Your task to perform on an android device: Open network settings Image 0: 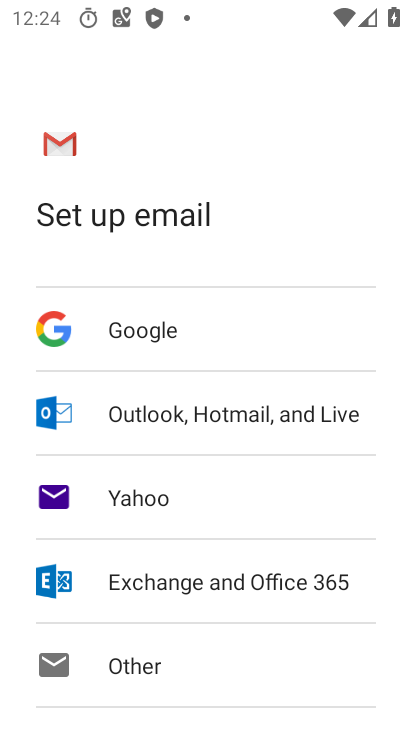
Step 0: press home button
Your task to perform on an android device: Open network settings Image 1: 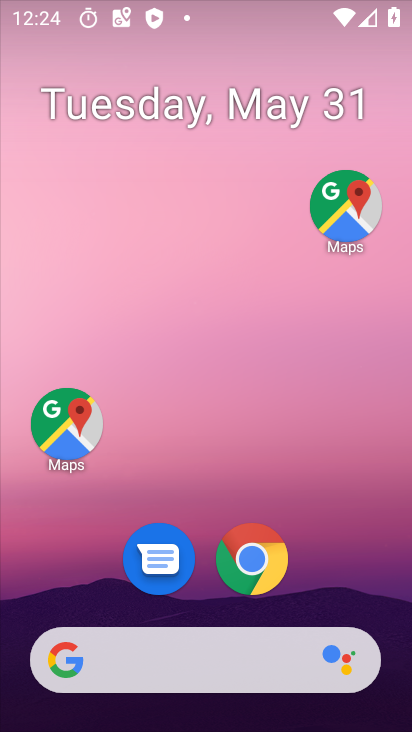
Step 1: drag from (358, 536) to (270, 28)
Your task to perform on an android device: Open network settings Image 2: 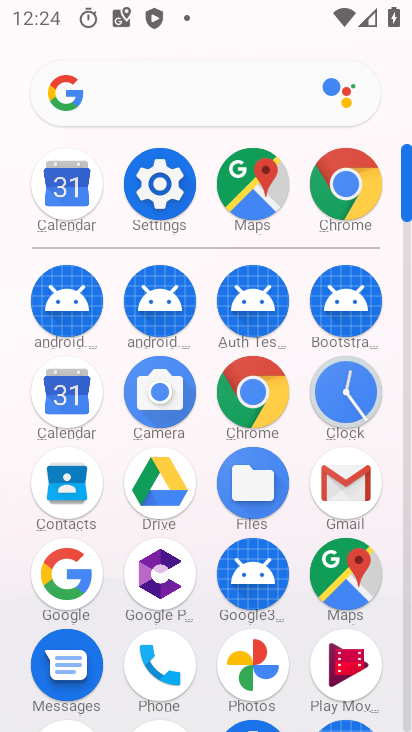
Step 2: click (169, 180)
Your task to perform on an android device: Open network settings Image 3: 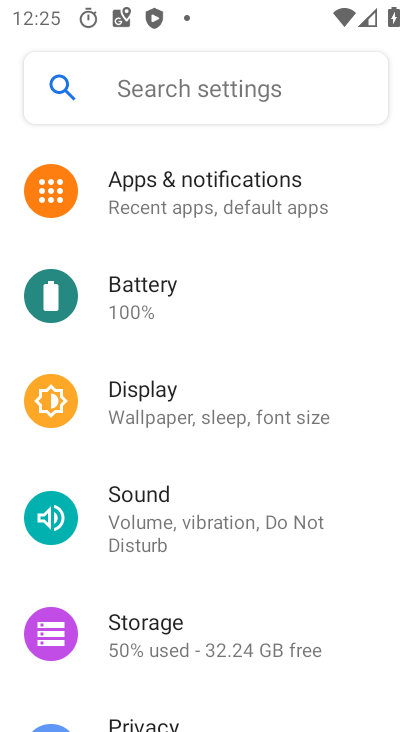
Step 3: drag from (203, 612) to (235, 205)
Your task to perform on an android device: Open network settings Image 4: 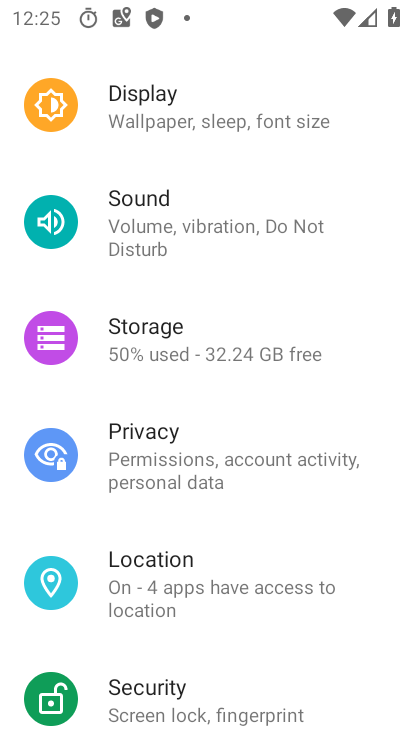
Step 4: drag from (198, 521) to (250, 174)
Your task to perform on an android device: Open network settings Image 5: 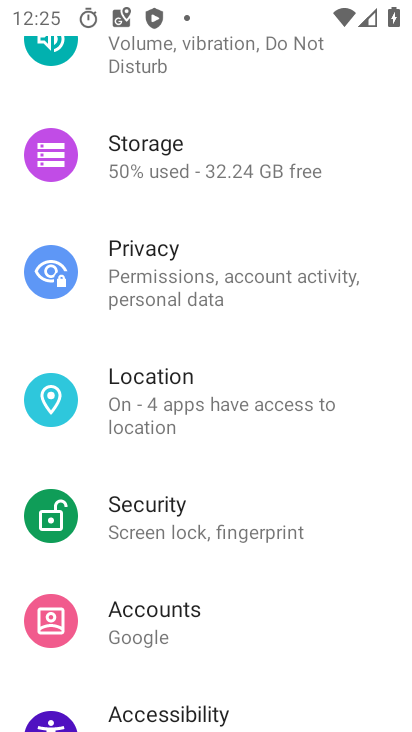
Step 5: drag from (175, 586) to (263, 186)
Your task to perform on an android device: Open network settings Image 6: 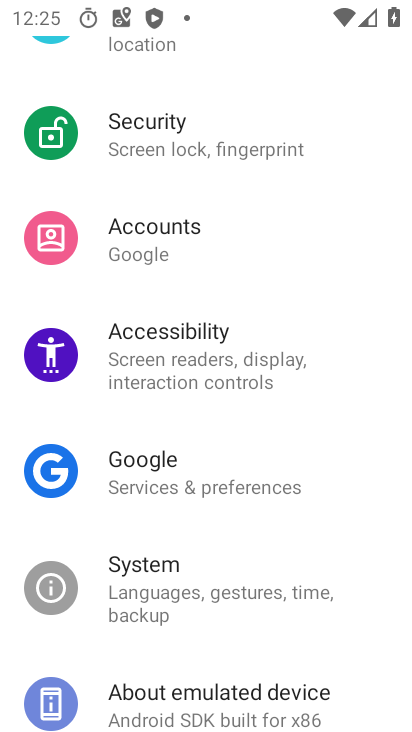
Step 6: drag from (253, 220) to (227, 731)
Your task to perform on an android device: Open network settings Image 7: 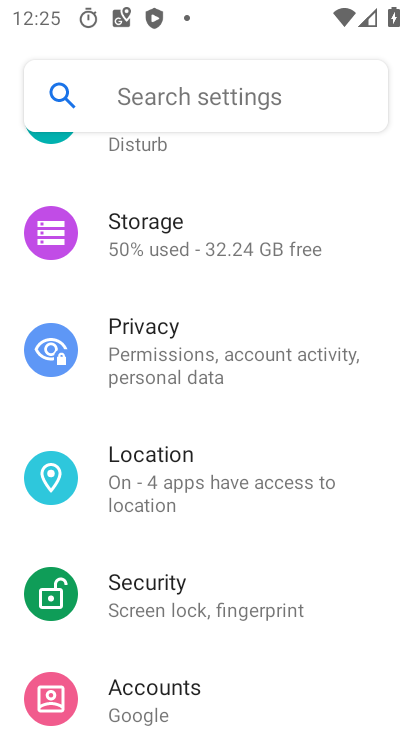
Step 7: drag from (258, 252) to (225, 608)
Your task to perform on an android device: Open network settings Image 8: 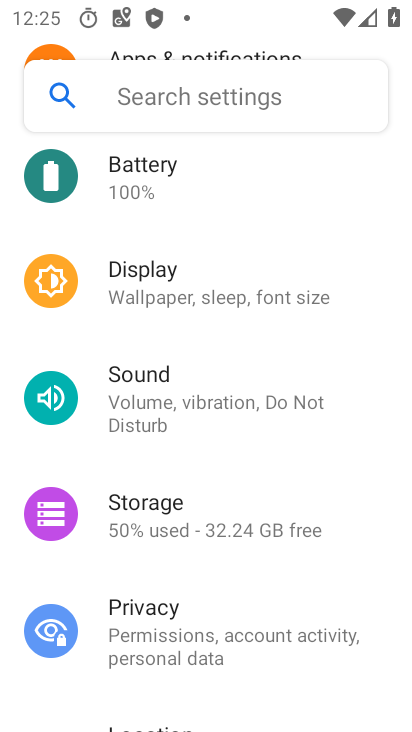
Step 8: drag from (237, 236) to (236, 661)
Your task to perform on an android device: Open network settings Image 9: 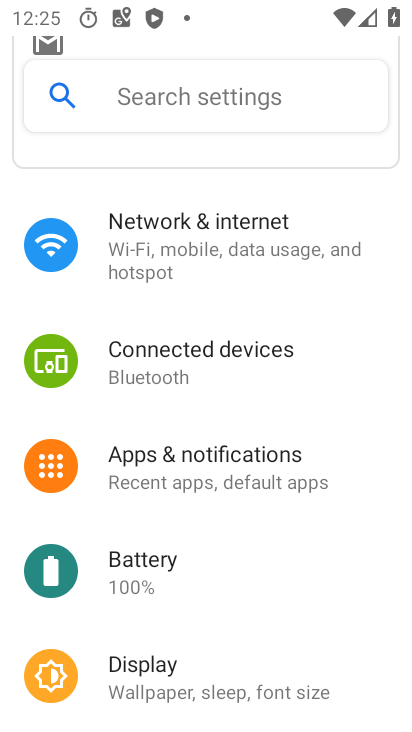
Step 9: click (173, 236)
Your task to perform on an android device: Open network settings Image 10: 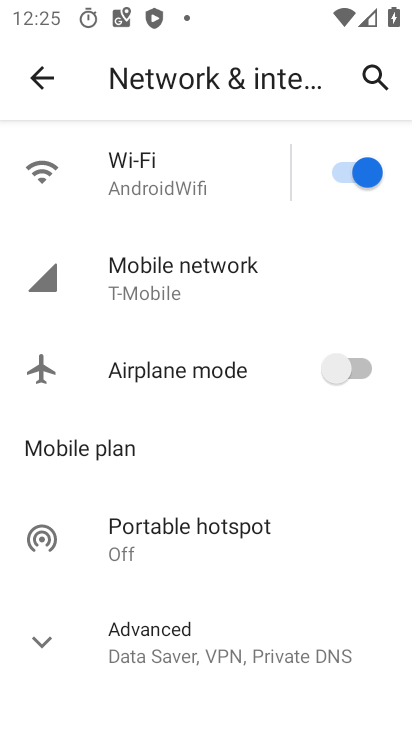
Step 10: task complete